Your task to perform on an android device: see creations saved in the google photos Image 0: 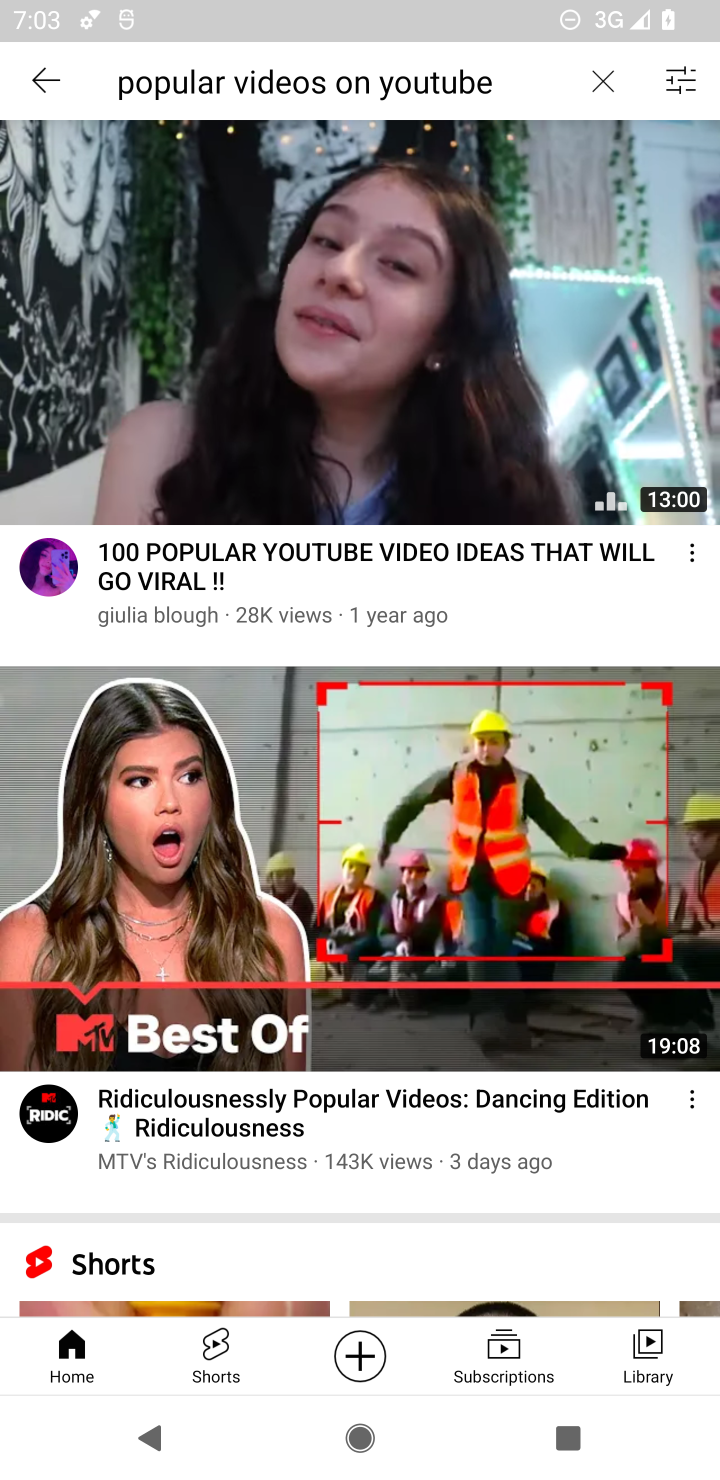
Step 0: press home button
Your task to perform on an android device: see creations saved in the google photos Image 1: 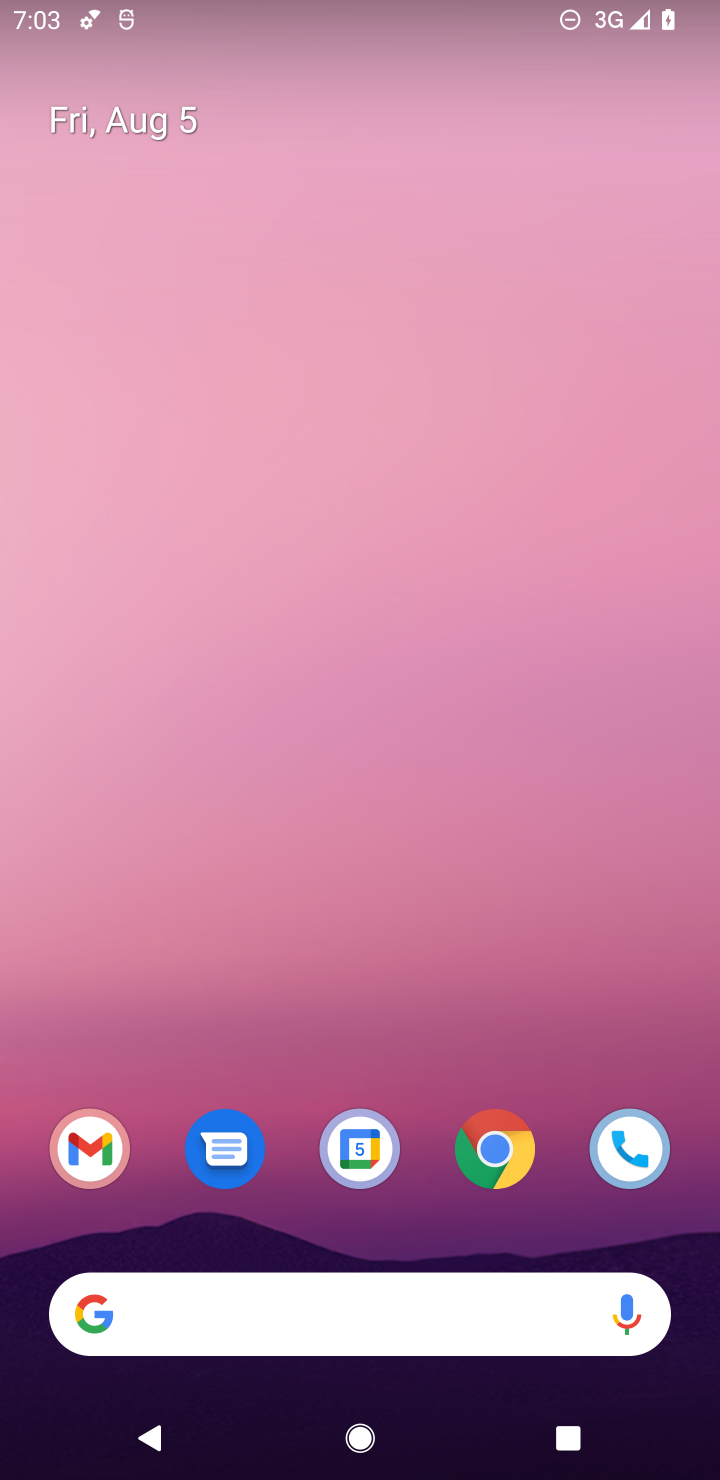
Step 1: drag from (303, 1021) to (239, 20)
Your task to perform on an android device: see creations saved in the google photos Image 2: 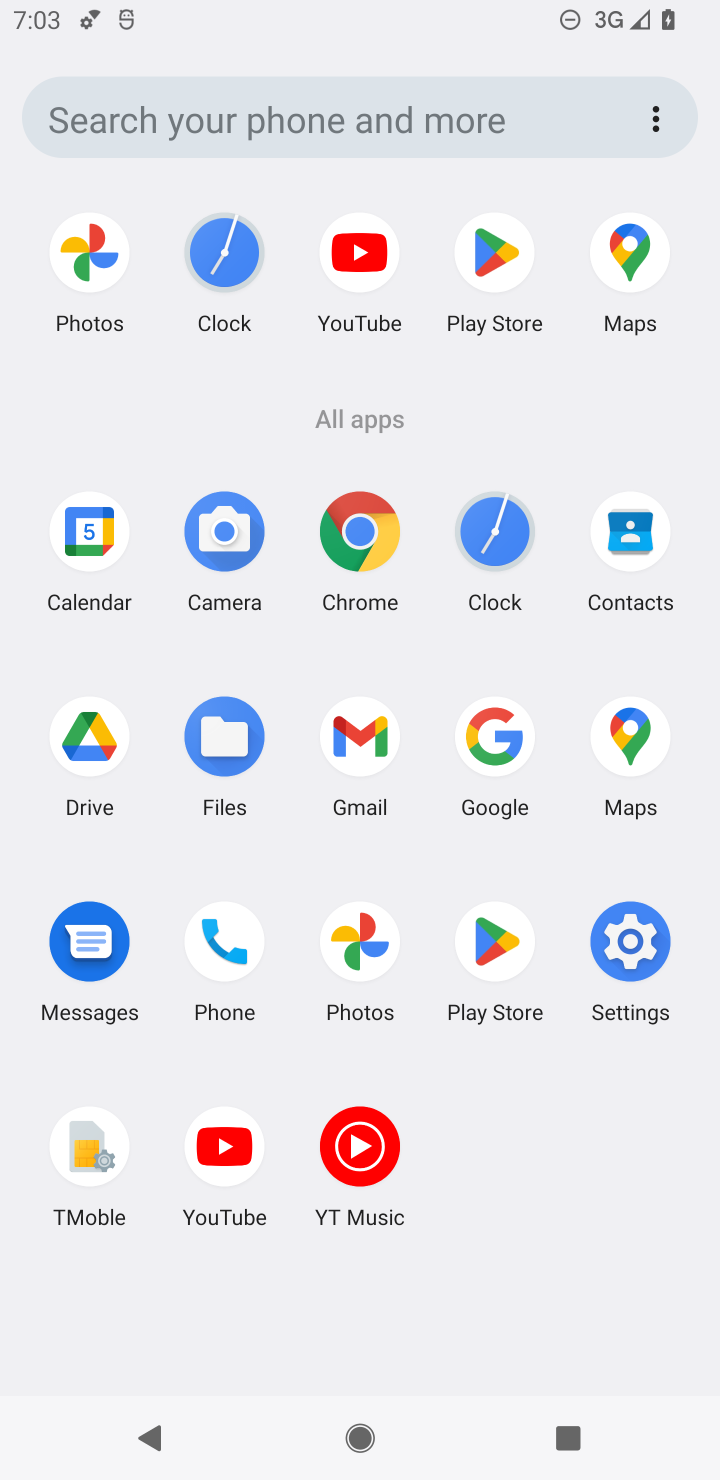
Step 2: click (92, 259)
Your task to perform on an android device: see creations saved in the google photos Image 3: 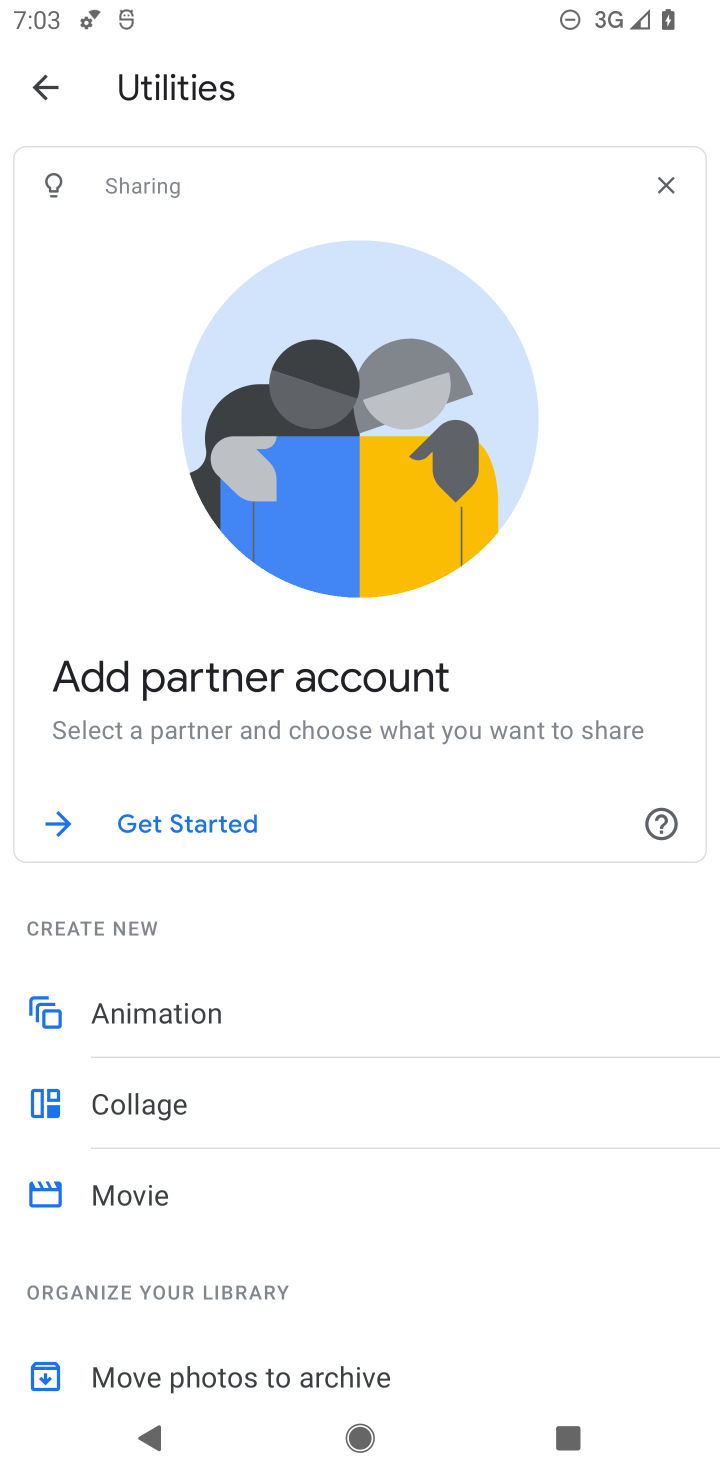
Step 3: click (41, 87)
Your task to perform on an android device: see creations saved in the google photos Image 4: 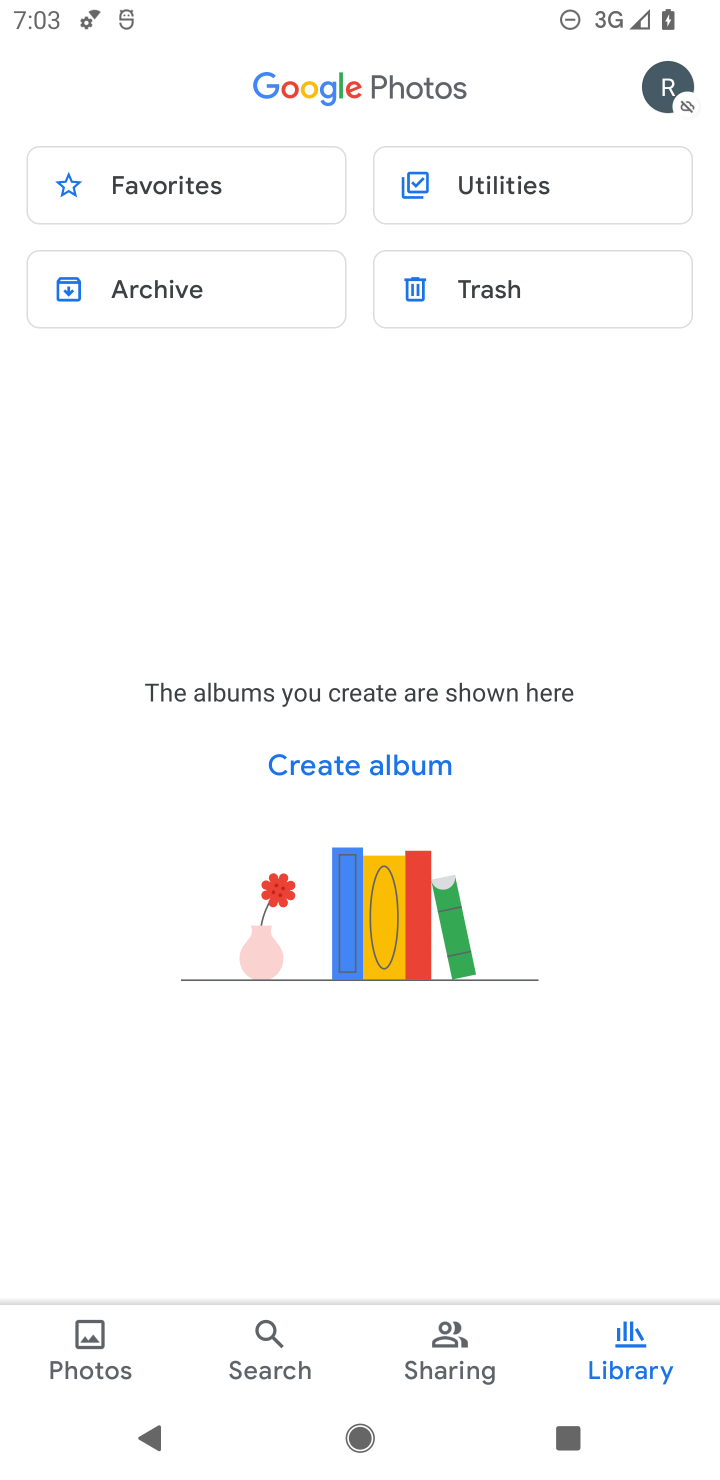
Step 4: click (84, 1342)
Your task to perform on an android device: see creations saved in the google photos Image 5: 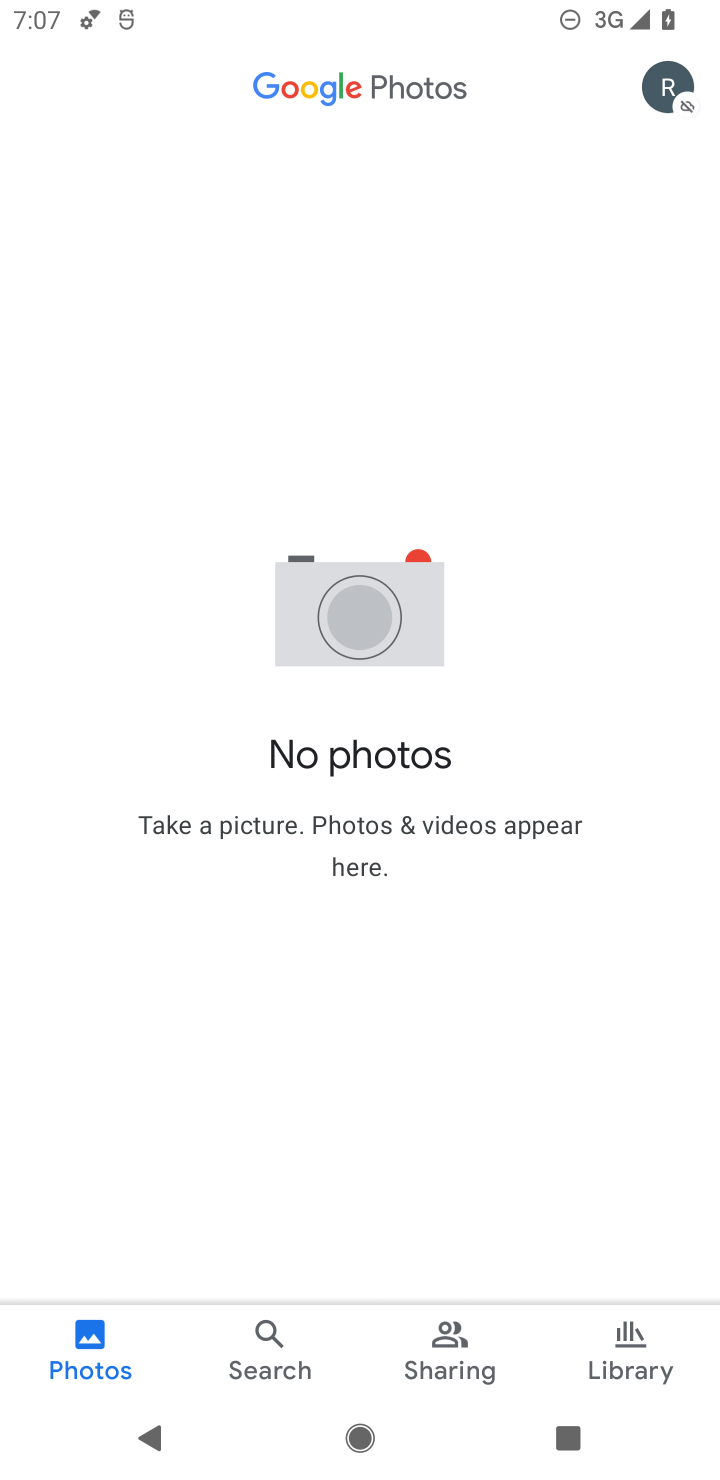
Step 5: task complete